Your task to perform on an android device: Turn off the flashlight Image 0: 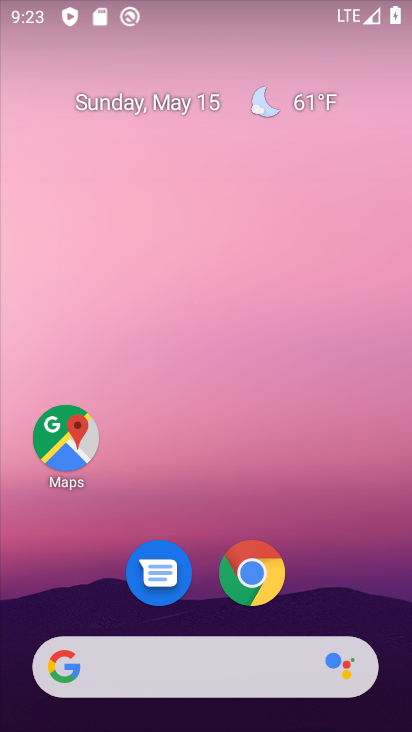
Step 0: drag from (25, 604) to (320, 37)
Your task to perform on an android device: Turn off the flashlight Image 1: 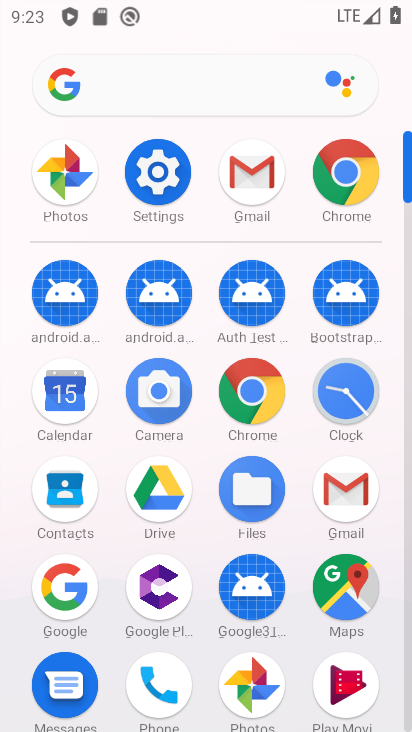
Step 1: press back button
Your task to perform on an android device: Turn off the flashlight Image 2: 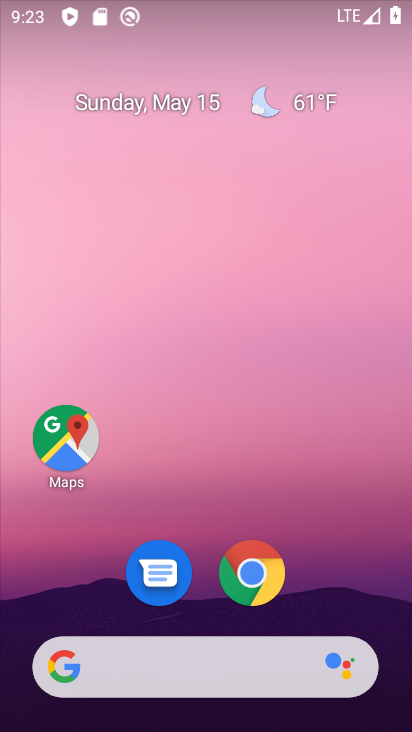
Step 2: drag from (35, 626) to (272, 283)
Your task to perform on an android device: Turn off the flashlight Image 3: 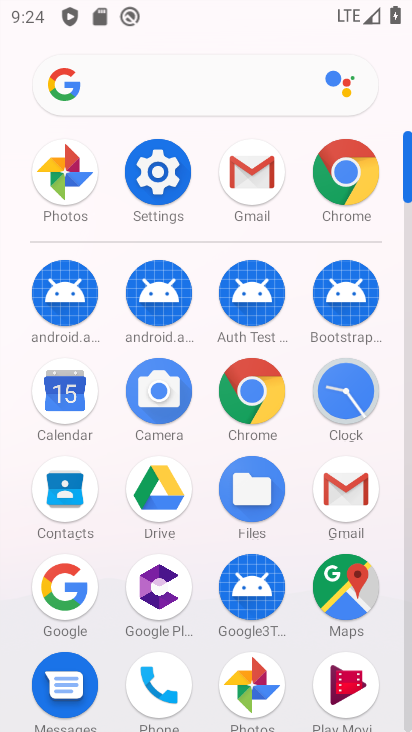
Step 3: click (151, 167)
Your task to perform on an android device: Turn off the flashlight Image 4: 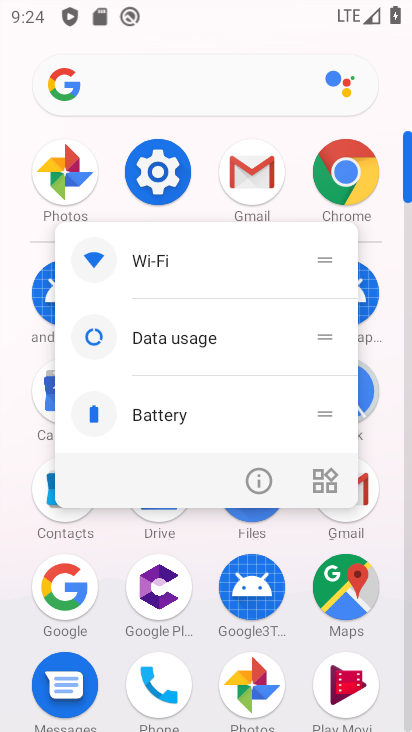
Step 4: click (133, 158)
Your task to perform on an android device: Turn off the flashlight Image 5: 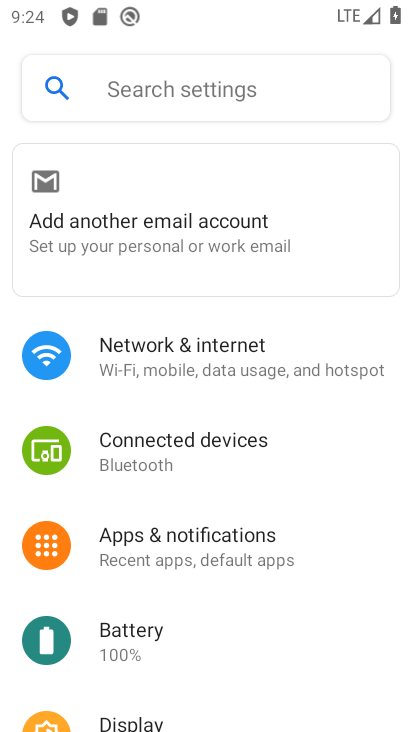
Step 5: task complete